Your task to perform on an android device: see sites visited before in the chrome app Image 0: 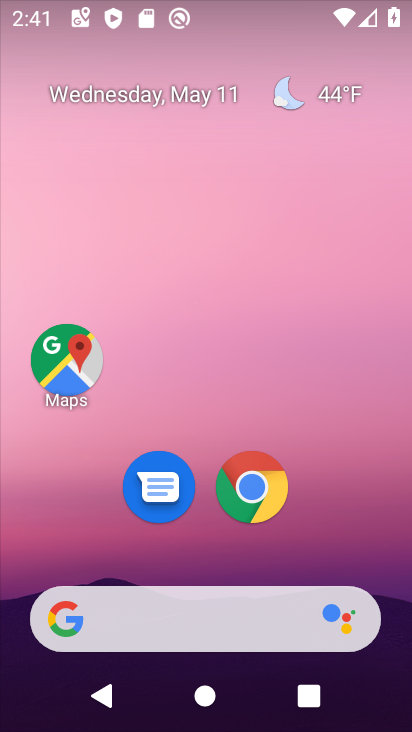
Step 0: click (255, 494)
Your task to perform on an android device: see sites visited before in the chrome app Image 1: 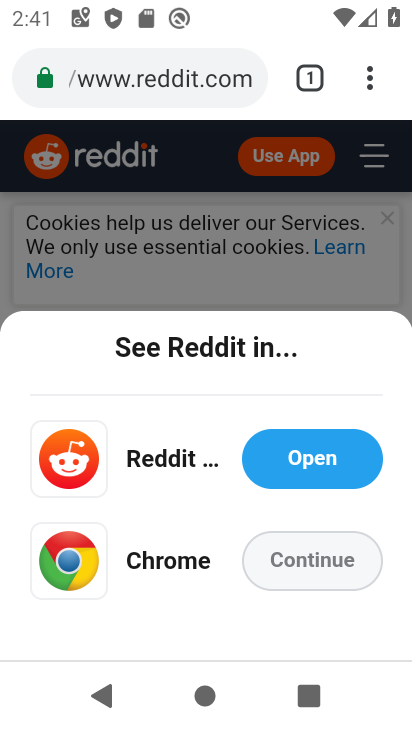
Step 1: task complete